Your task to perform on an android device: turn on data saver in the chrome app Image 0: 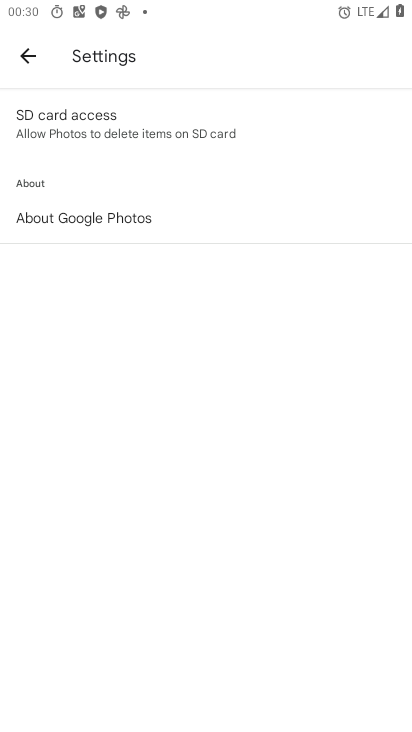
Step 0: press home button
Your task to perform on an android device: turn on data saver in the chrome app Image 1: 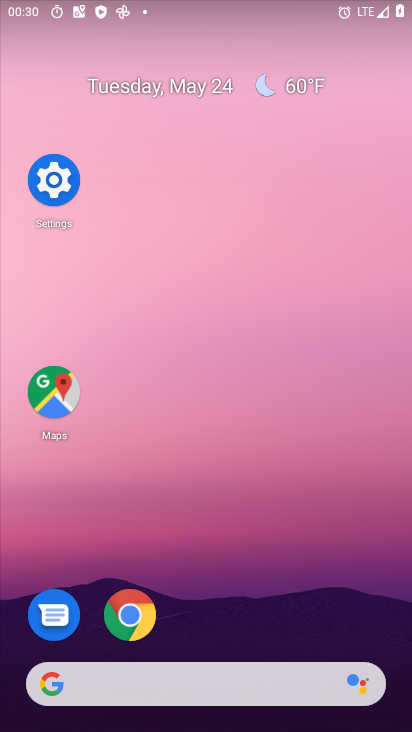
Step 1: click (140, 617)
Your task to perform on an android device: turn on data saver in the chrome app Image 2: 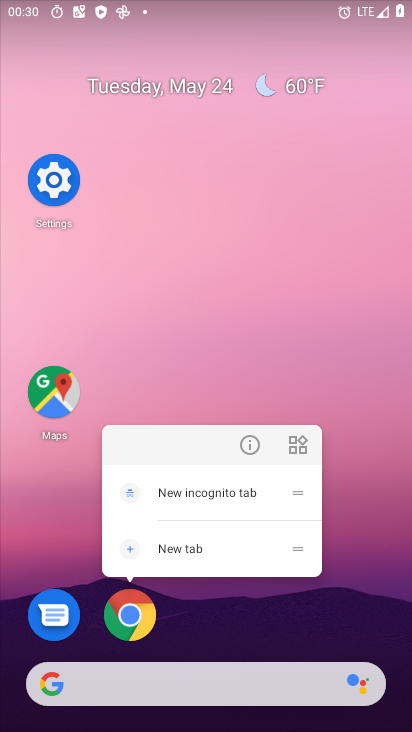
Step 2: click (133, 613)
Your task to perform on an android device: turn on data saver in the chrome app Image 3: 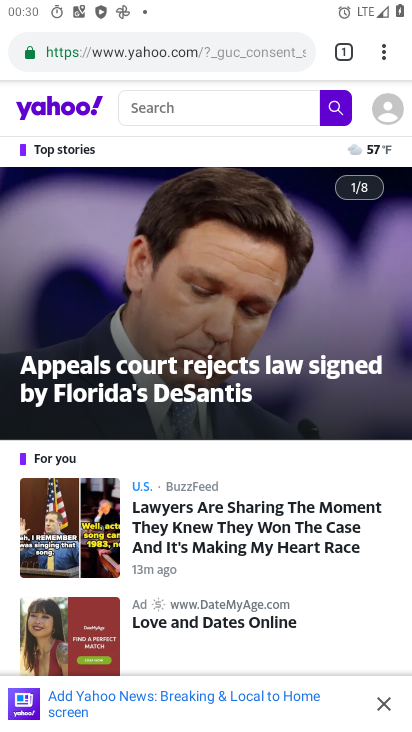
Step 3: click (379, 47)
Your task to perform on an android device: turn on data saver in the chrome app Image 4: 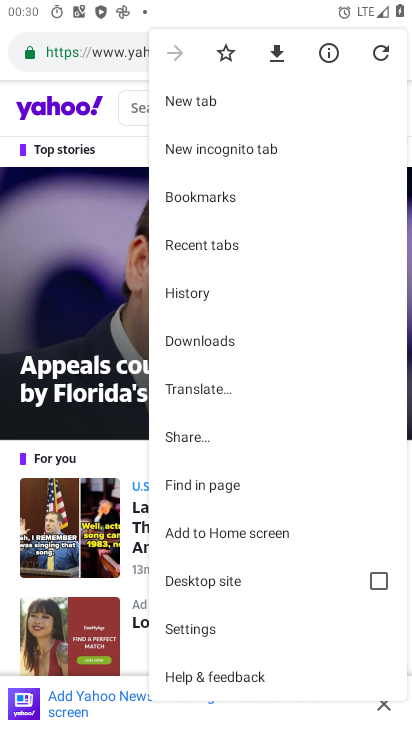
Step 4: click (217, 635)
Your task to perform on an android device: turn on data saver in the chrome app Image 5: 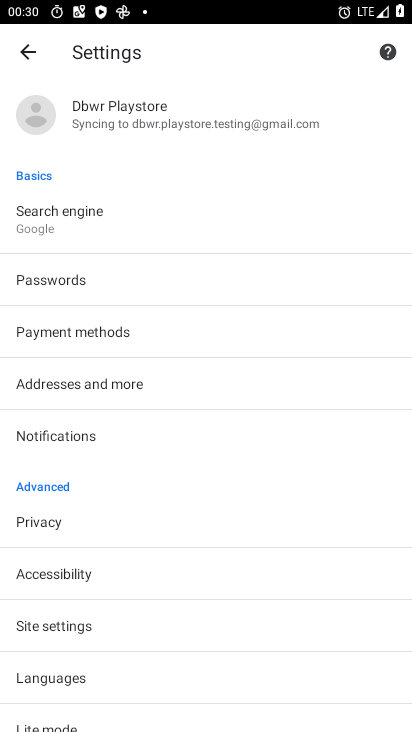
Step 5: drag from (80, 680) to (107, 404)
Your task to perform on an android device: turn on data saver in the chrome app Image 6: 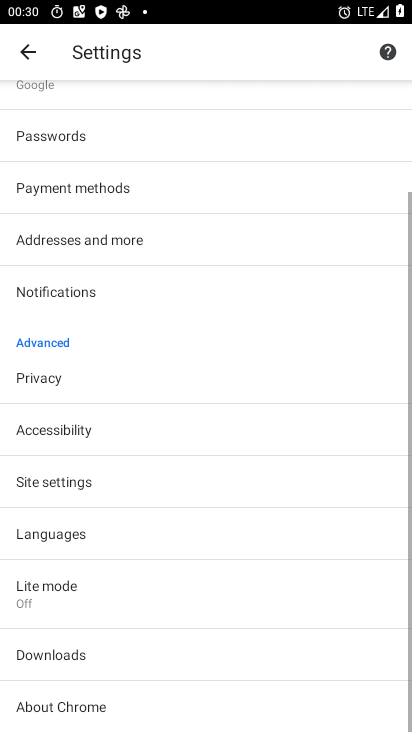
Step 6: click (77, 598)
Your task to perform on an android device: turn on data saver in the chrome app Image 7: 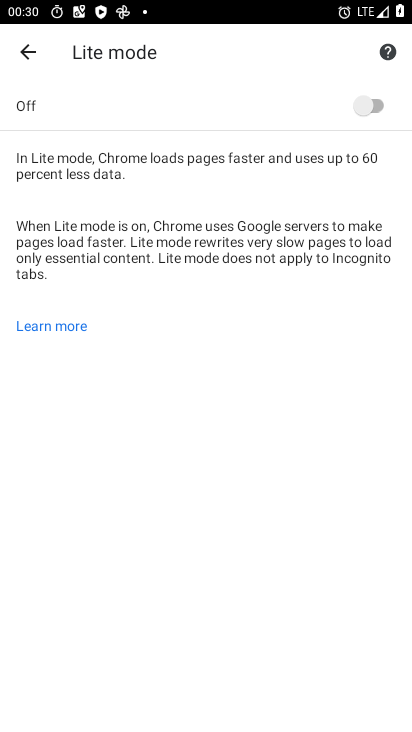
Step 7: click (375, 97)
Your task to perform on an android device: turn on data saver in the chrome app Image 8: 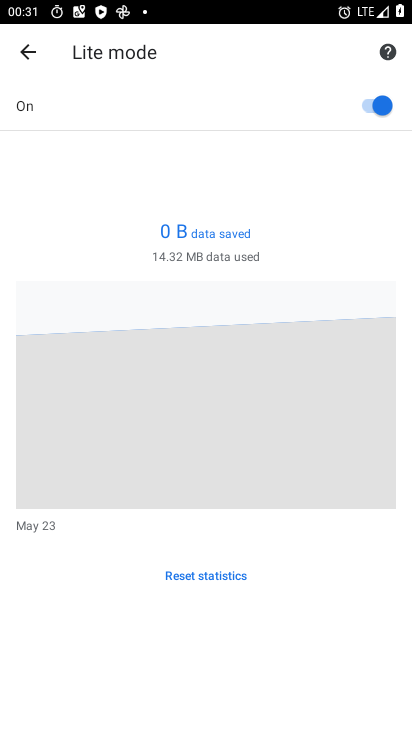
Step 8: task complete